Your task to perform on an android device: change the clock display to digital Image 0: 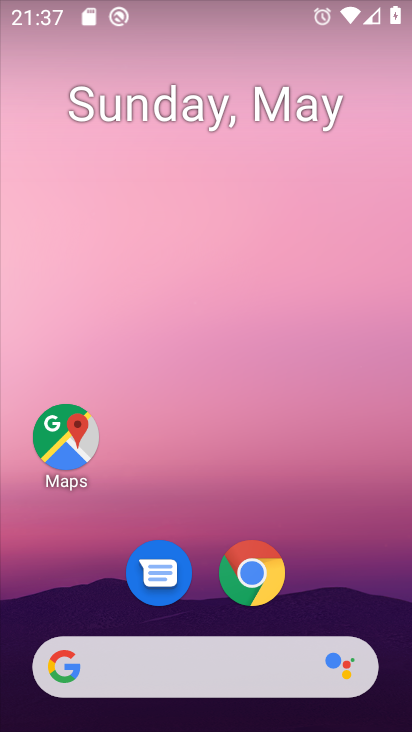
Step 0: drag from (234, 467) to (282, 1)
Your task to perform on an android device: change the clock display to digital Image 1: 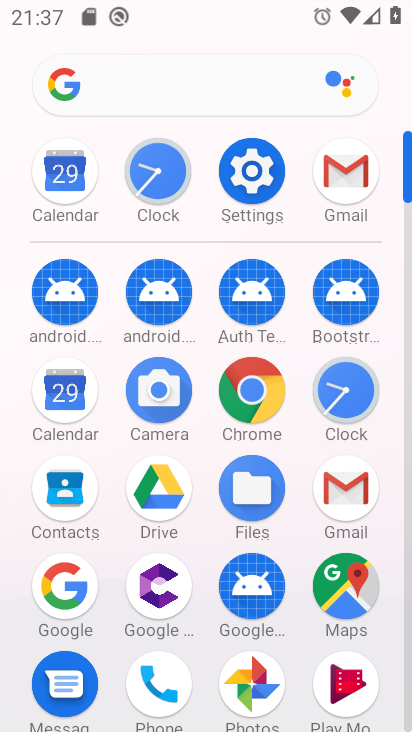
Step 1: click (152, 173)
Your task to perform on an android device: change the clock display to digital Image 2: 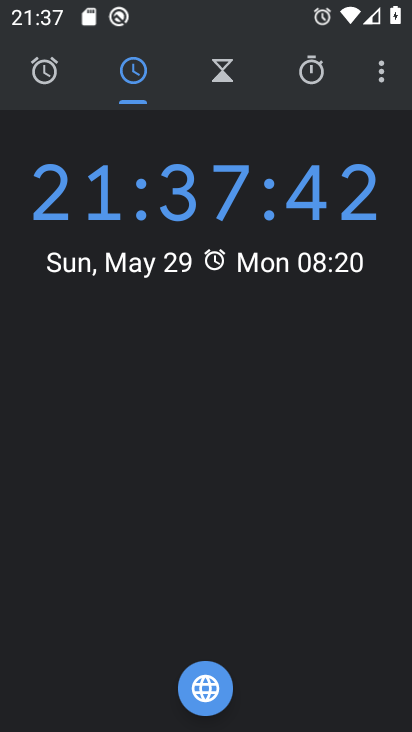
Step 2: task complete